Your task to perform on an android device: Go to Android settings Image 0: 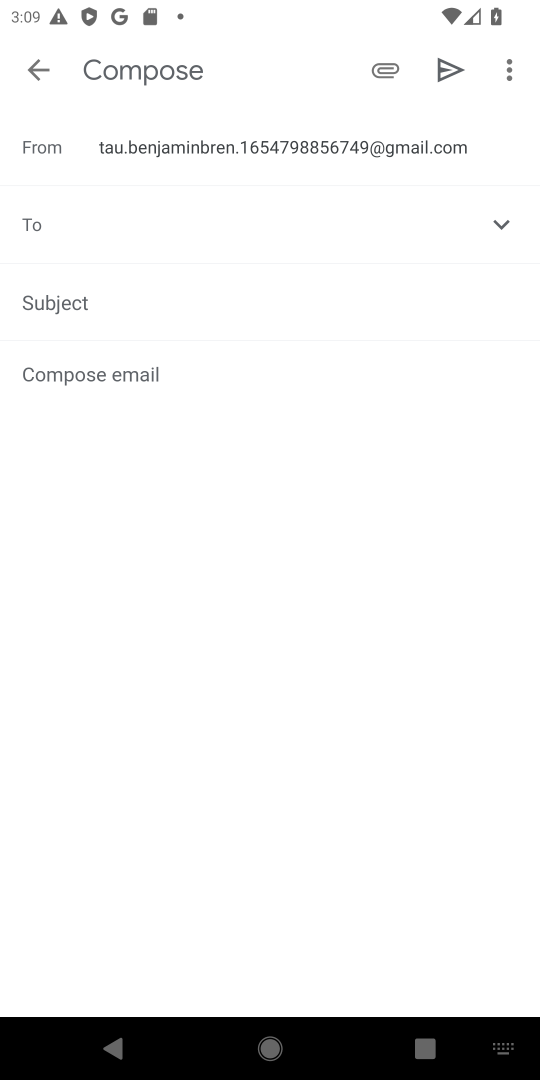
Step 0: press home button
Your task to perform on an android device: Go to Android settings Image 1: 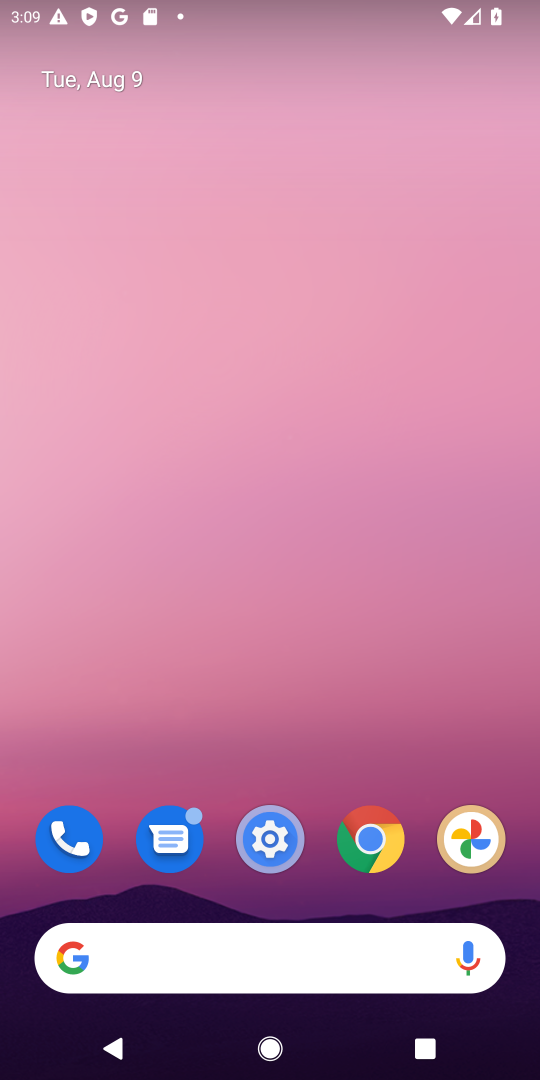
Step 1: drag from (328, 730) to (305, 120)
Your task to perform on an android device: Go to Android settings Image 2: 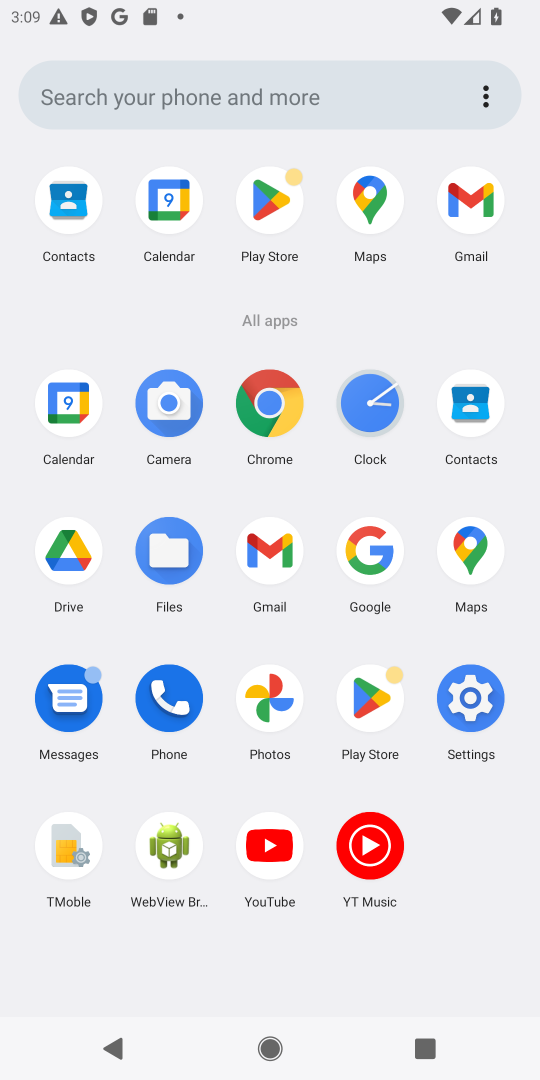
Step 2: click (462, 714)
Your task to perform on an android device: Go to Android settings Image 3: 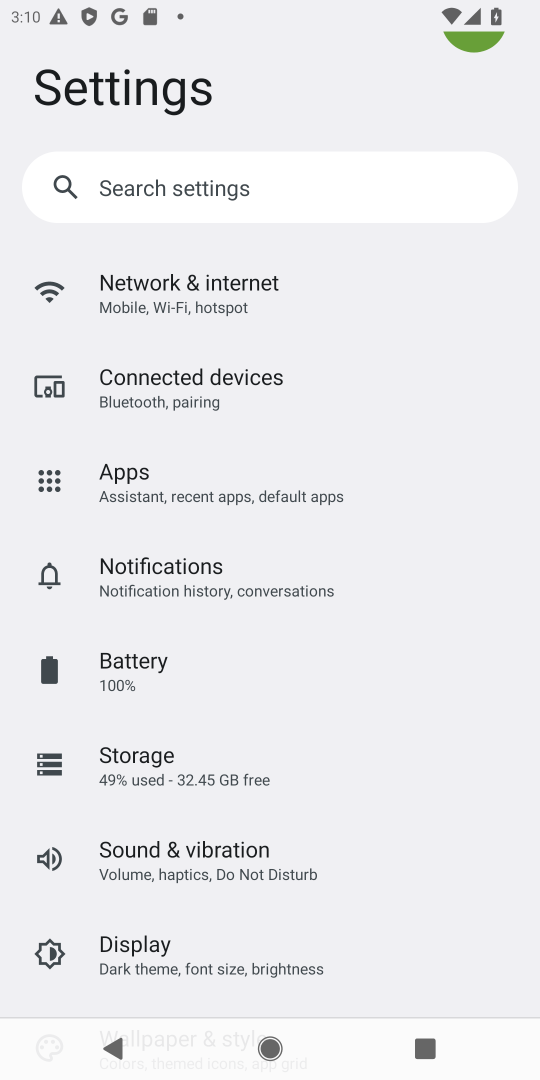
Step 3: task complete